Your task to perform on an android device: Open Android settings Image 0: 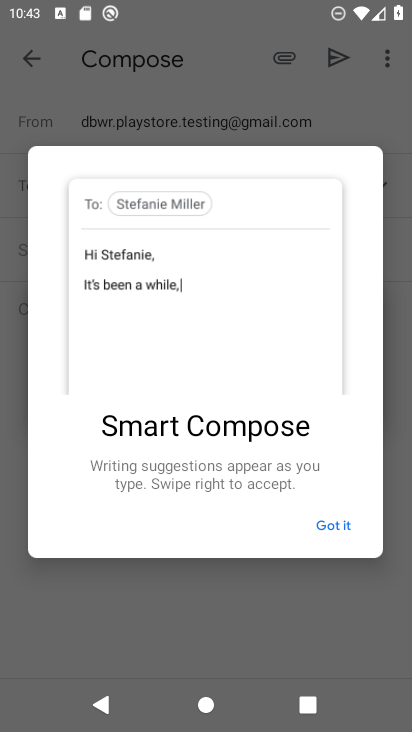
Step 0: press home button
Your task to perform on an android device: Open Android settings Image 1: 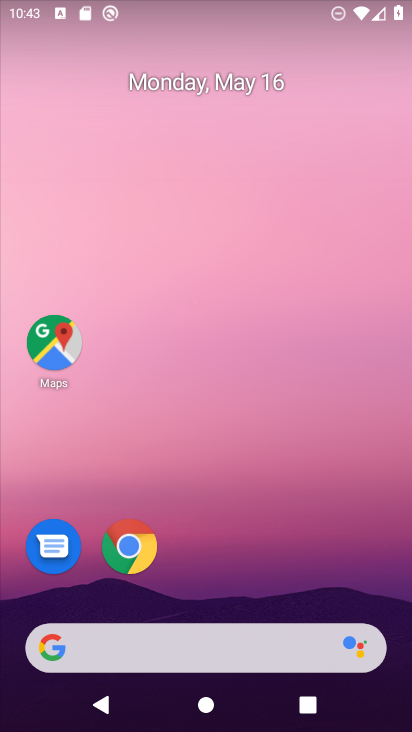
Step 1: drag from (182, 583) to (224, 112)
Your task to perform on an android device: Open Android settings Image 2: 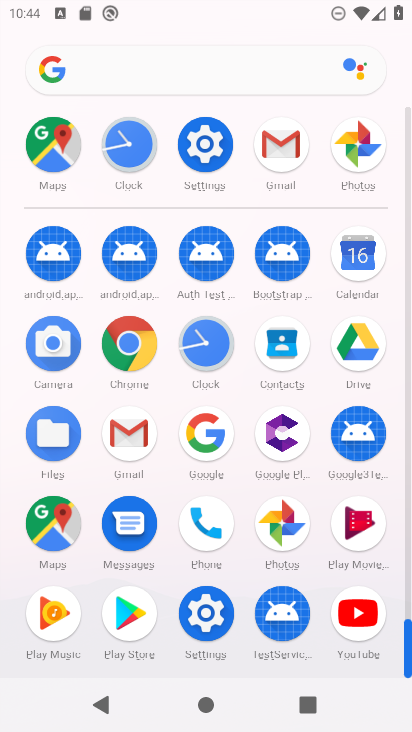
Step 2: click (201, 145)
Your task to perform on an android device: Open Android settings Image 3: 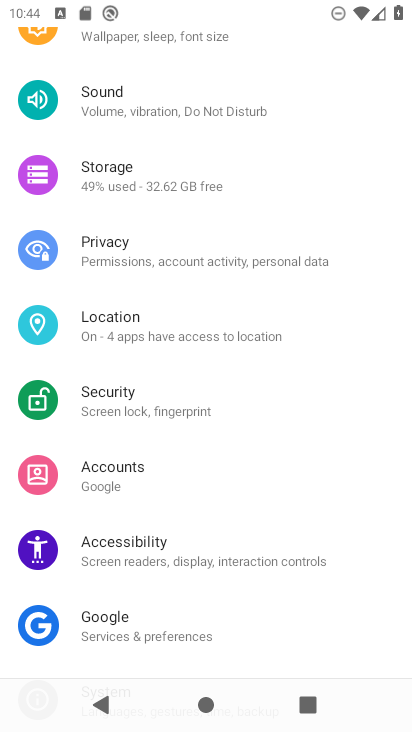
Step 3: task complete